Your task to perform on an android device: create a new album in the google photos Image 0: 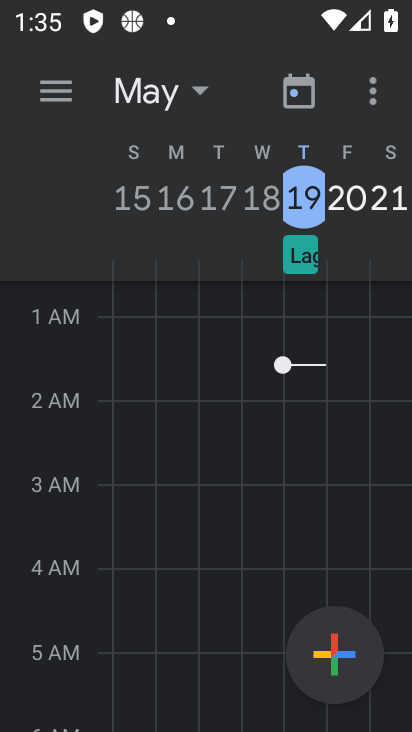
Step 0: press back button
Your task to perform on an android device: create a new album in the google photos Image 1: 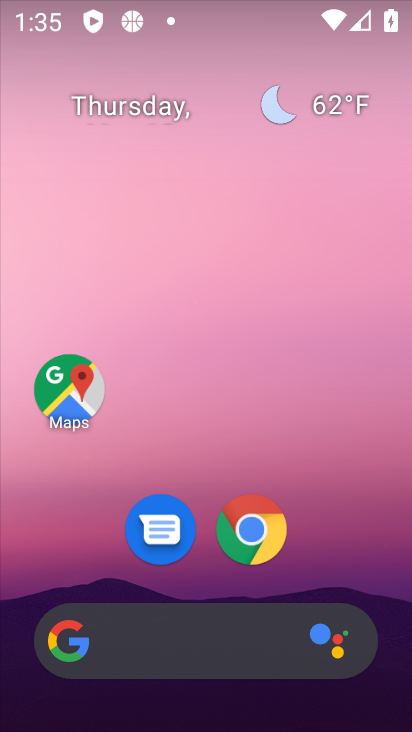
Step 1: drag from (329, 520) to (390, 24)
Your task to perform on an android device: create a new album in the google photos Image 2: 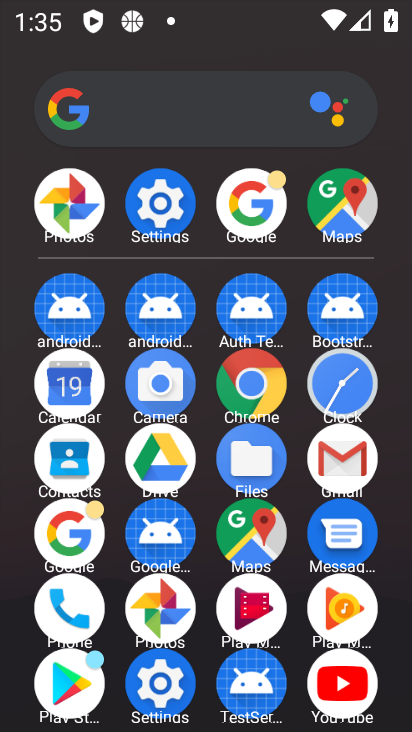
Step 2: click (67, 201)
Your task to perform on an android device: create a new album in the google photos Image 3: 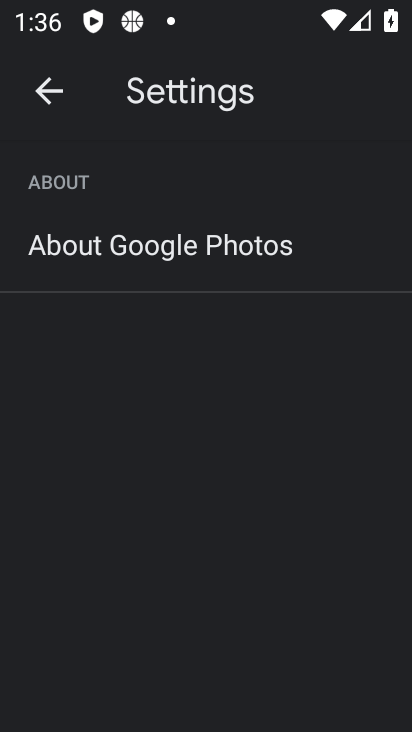
Step 3: press back button
Your task to perform on an android device: create a new album in the google photos Image 4: 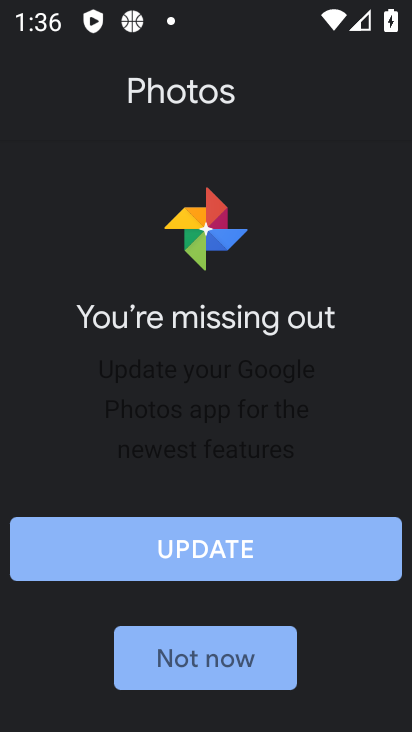
Step 4: click (217, 557)
Your task to perform on an android device: create a new album in the google photos Image 5: 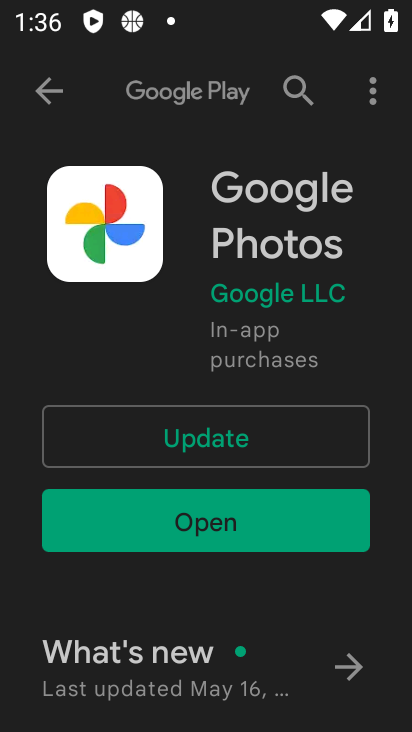
Step 5: click (201, 424)
Your task to perform on an android device: create a new album in the google photos Image 6: 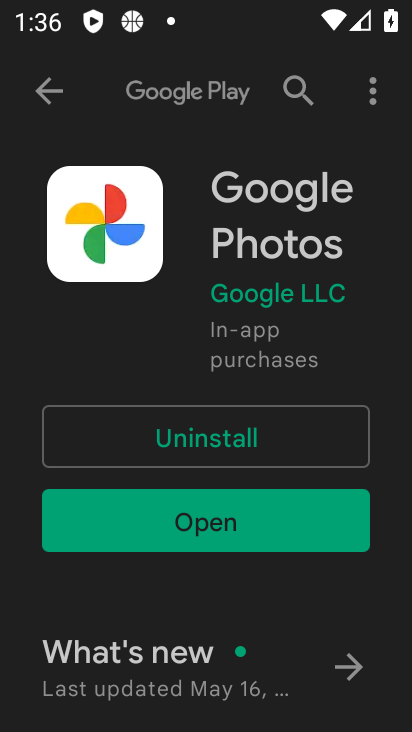
Step 6: click (209, 540)
Your task to perform on an android device: create a new album in the google photos Image 7: 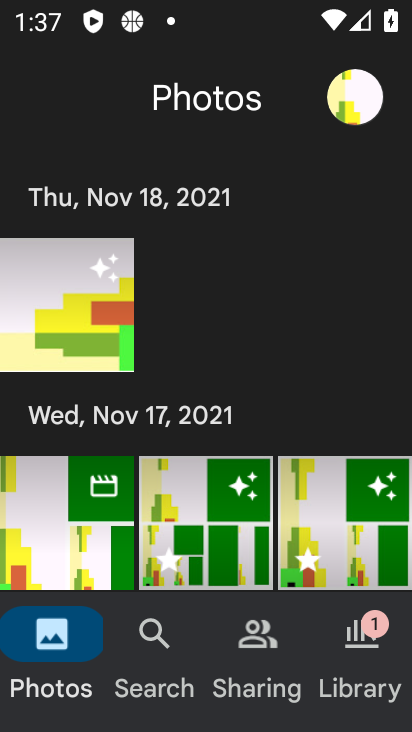
Step 7: click (355, 634)
Your task to perform on an android device: create a new album in the google photos Image 8: 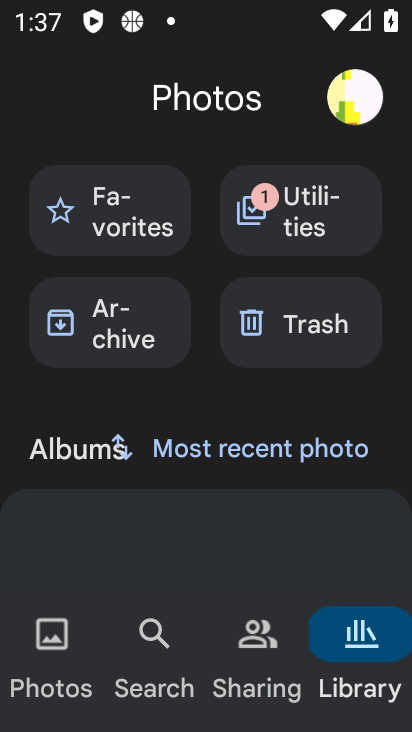
Step 8: drag from (175, 551) to (186, 325)
Your task to perform on an android device: create a new album in the google photos Image 9: 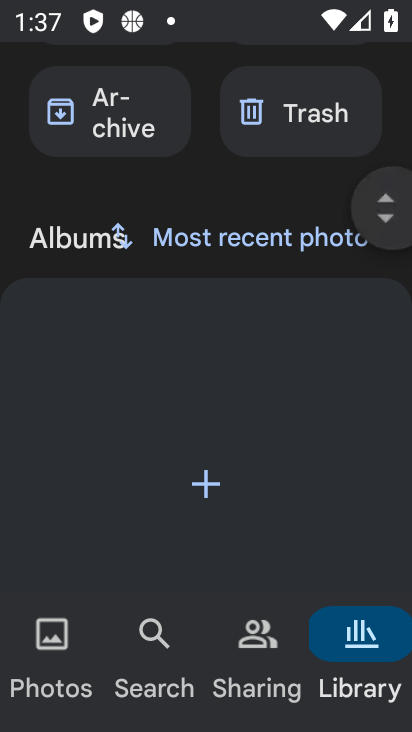
Step 9: click (204, 485)
Your task to perform on an android device: create a new album in the google photos Image 10: 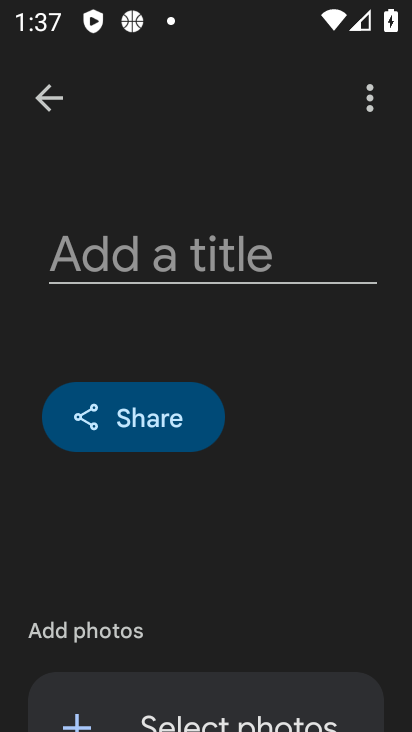
Step 10: click (182, 261)
Your task to perform on an android device: create a new album in the google photos Image 11: 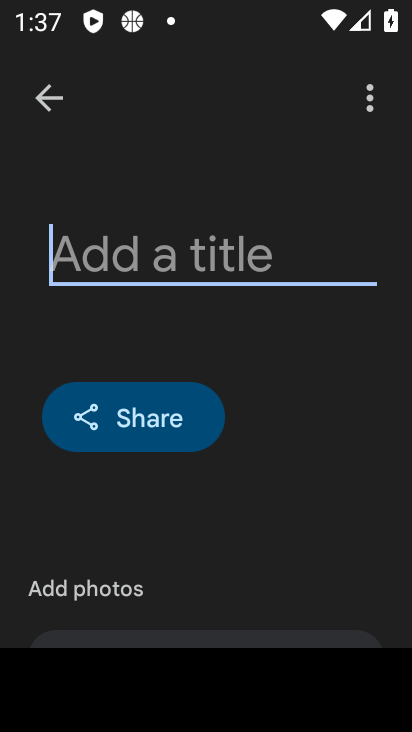
Step 11: type "Lilly"
Your task to perform on an android device: create a new album in the google photos Image 12: 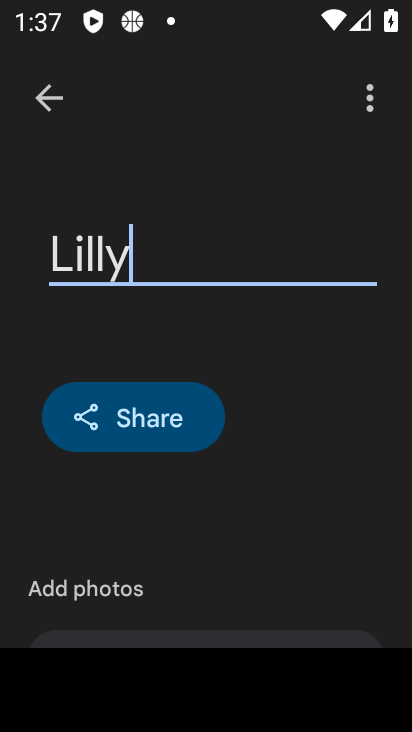
Step 12: type ""
Your task to perform on an android device: create a new album in the google photos Image 13: 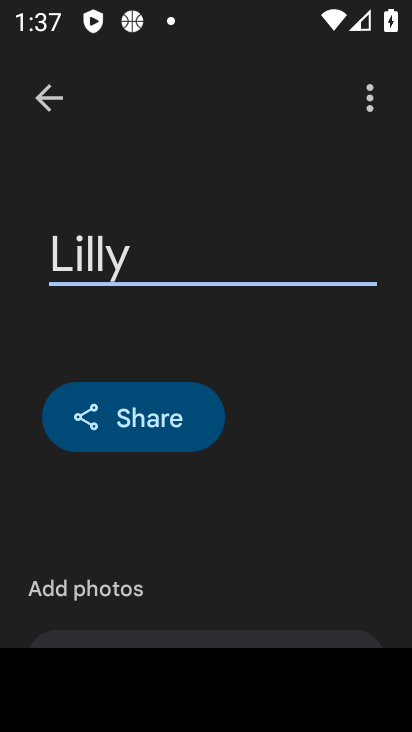
Step 13: drag from (190, 538) to (309, 340)
Your task to perform on an android device: create a new album in the google photos Image 14: 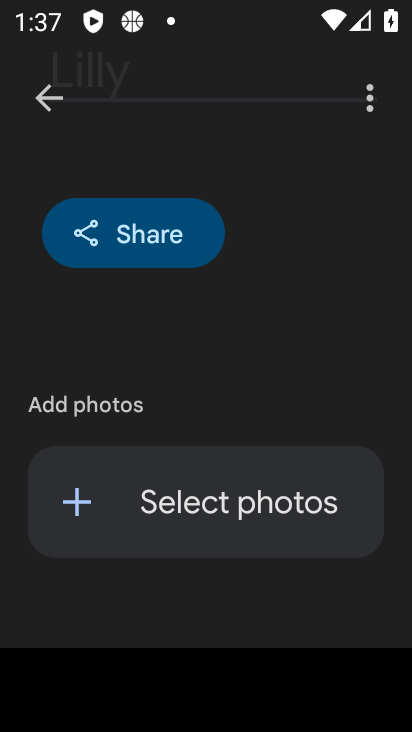
Step 14: click (76, 501)
Your task to perform on an android device: create a new album in the google photos Image 15: 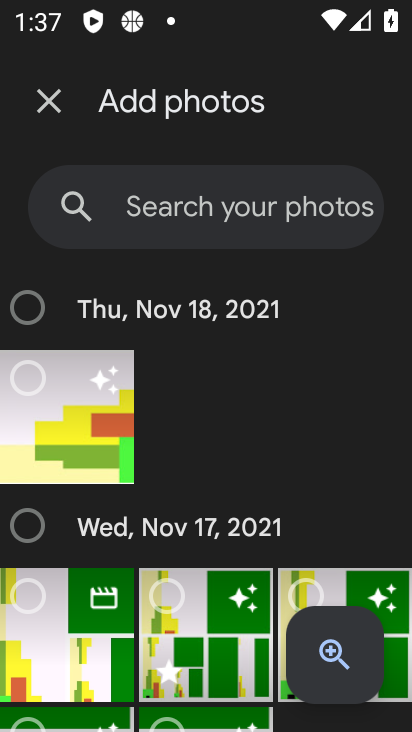
Step 15: click (33, 315)
Your task to perform on an android device: create a new album in the google photos Image 16: 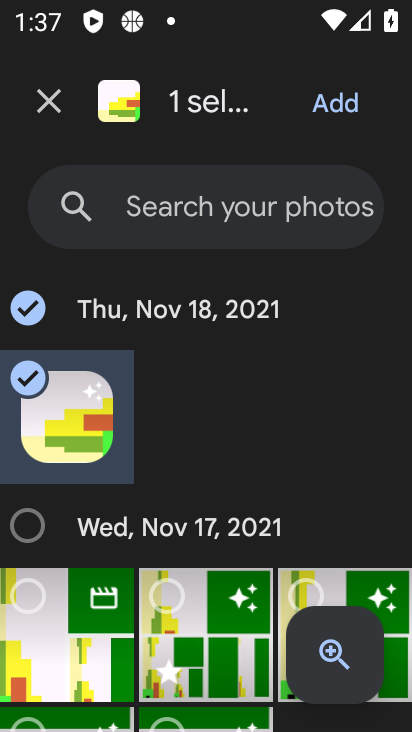
Step 16: click (325, 107)
Your task to perform on an android device: create a new album in the google photos Image 17: 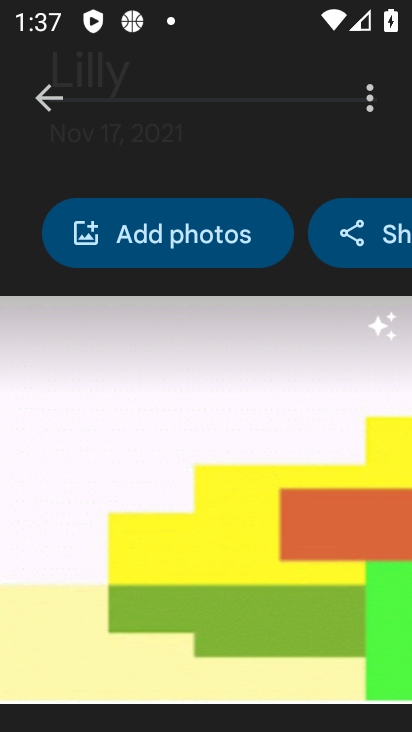
Step 17: task complete